Your task to perform on an android device: turn off airplane mode Image 0: 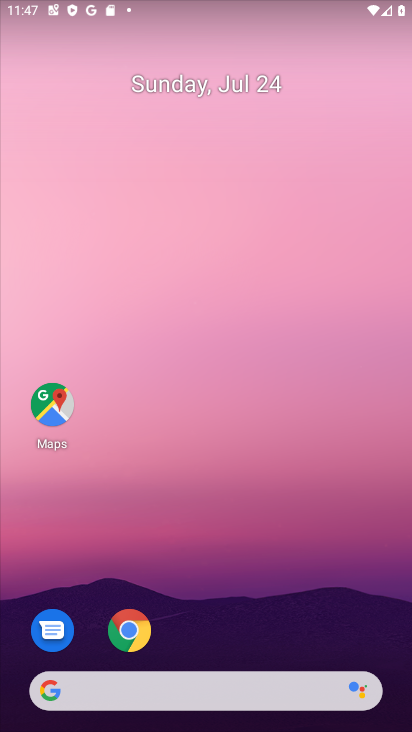
Step 0: drag from (190, 10) to (220, 447)
Your task to perform on an android device: turn off airplane mode Image 1: 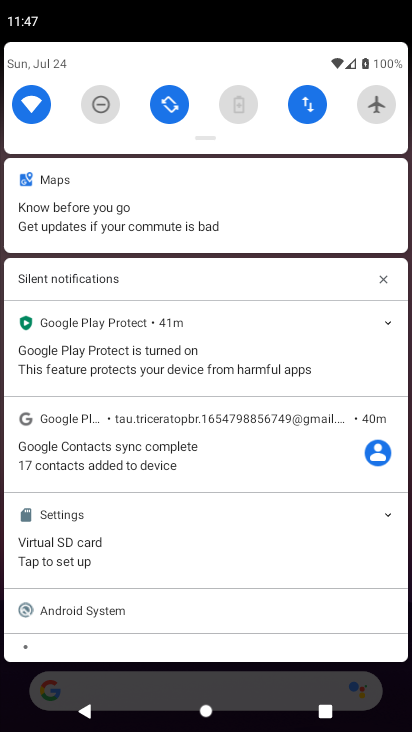
Step 1: task complete